Your task to perform on an android device: turn on translation in the chrome app Image 0: 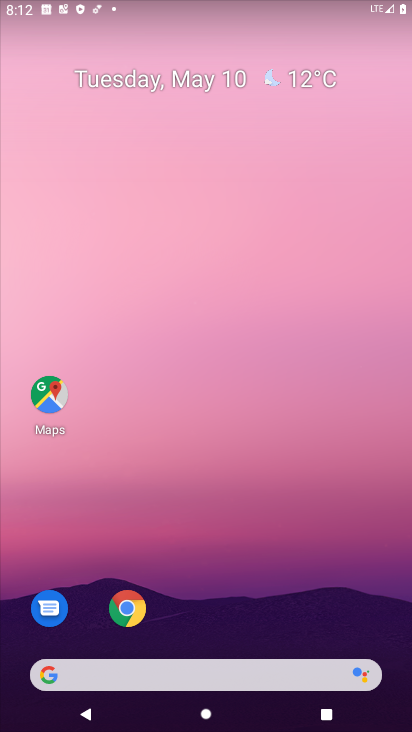
Step 0: press home button
Your task to perform on an android device: turn on translation in the chrome app Image 1: 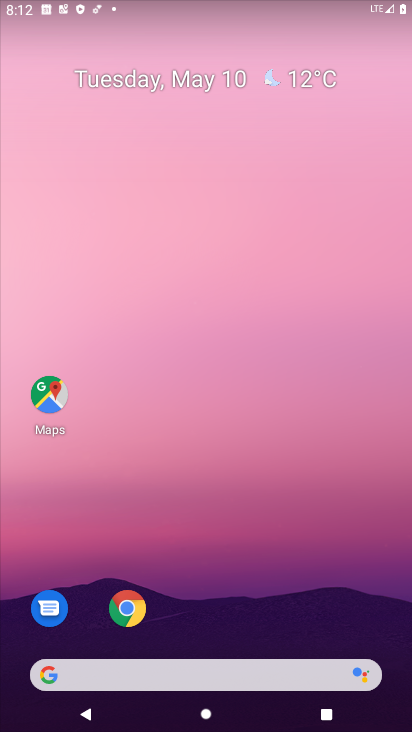
Step 1: click (130, 613)
Your task to perform on an android device: turn on translation in the chrome app Image 2: 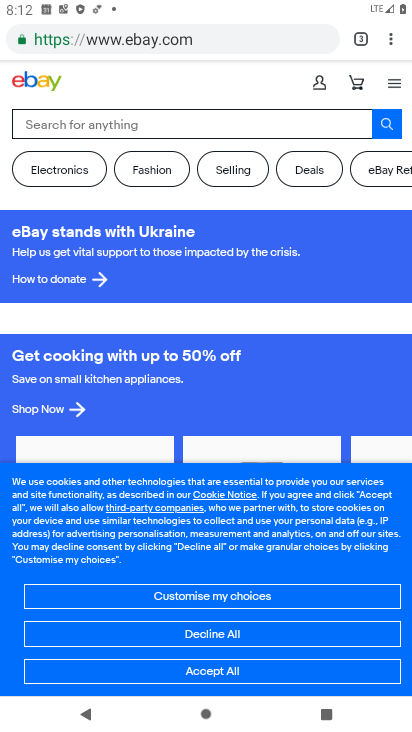
Step 2: drag from (389, 37) to (263, 466)
Your task to perform on an android device: turn on translation in the chrome app Image 3: 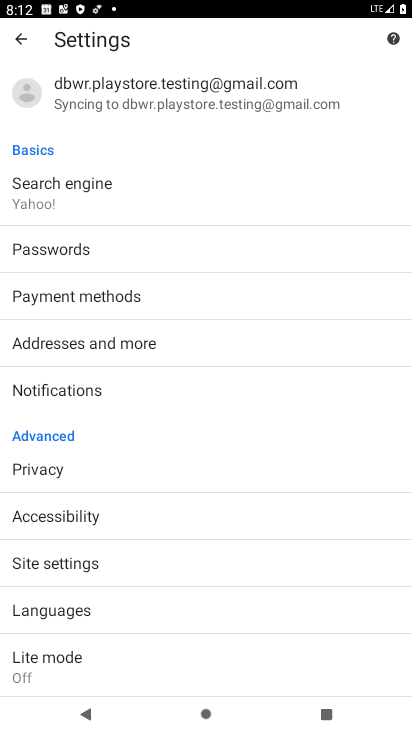
Step 3: click (65, 614)
Your task to perform on an android device: turn on translation in the chrome app Image 4: 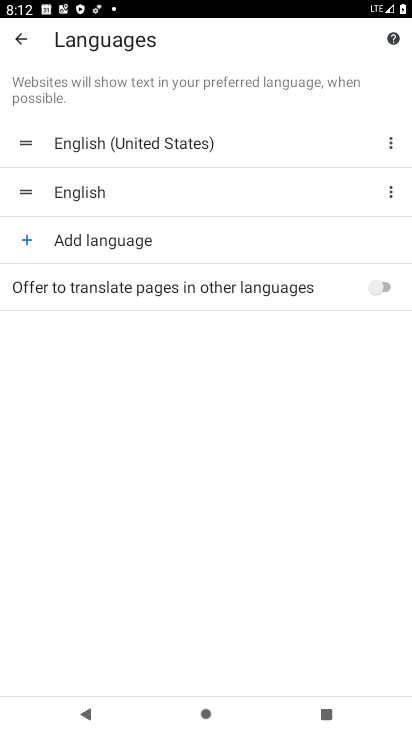
Step 4: click (385, 276)
Your task to perform on an android device: turn on translation in the chrome app Image 5: 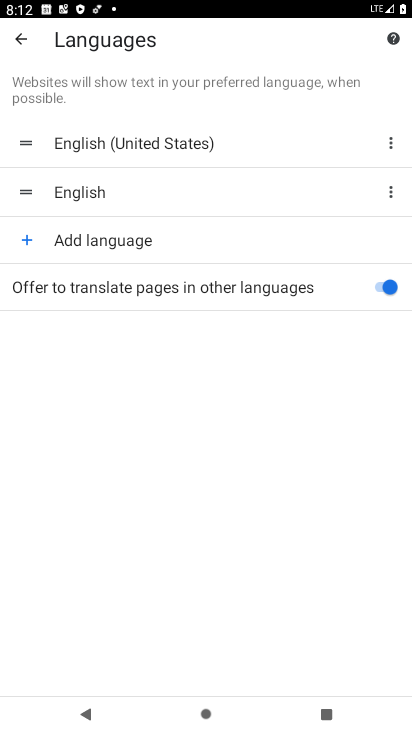
Step 5: task complete